Your task to perform on an android device: When is my next meeting? Image 0: 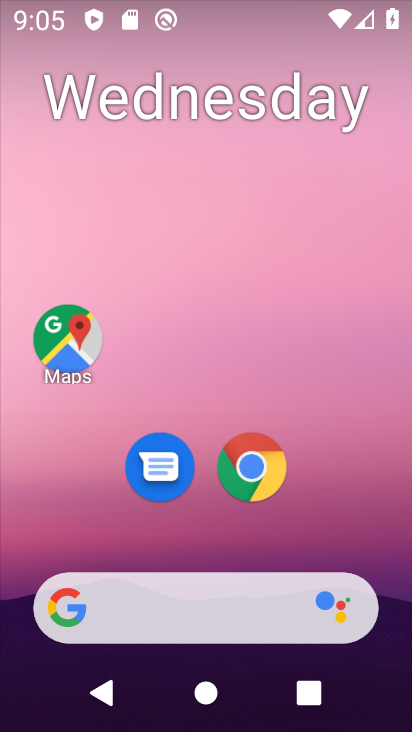
Step 0: drag from (329, 543) to (300, 46)
Your task to perform on an android device: When is my next meeting? Image 1: 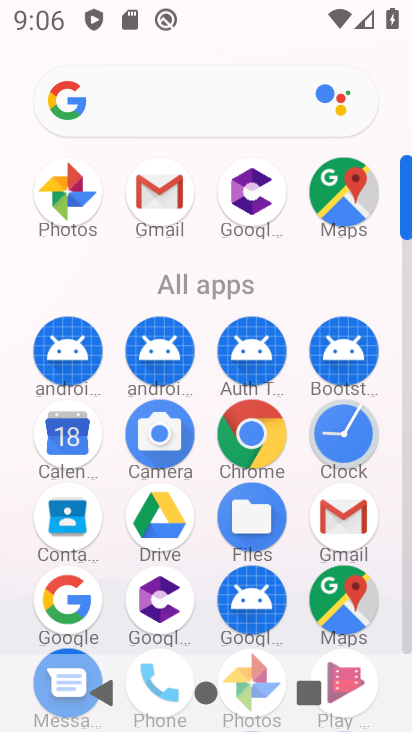
Step 1: click (68, 431)
Your task to perform on an android device: When is my next meeting? Image 2: 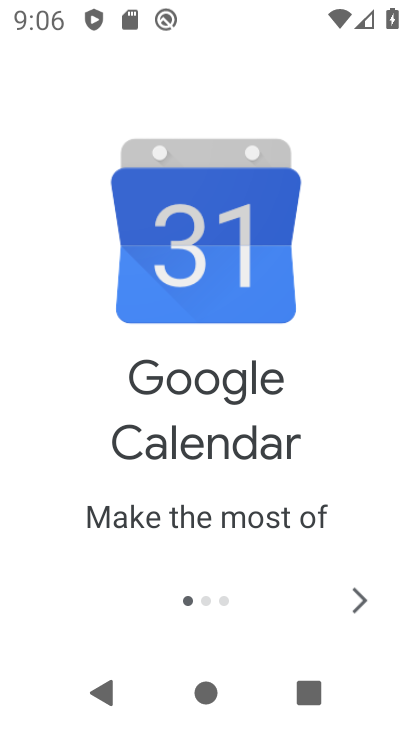
Step 2: click (358, 595)
Your task to perform on an android device: When is my next meeting? Image 3: 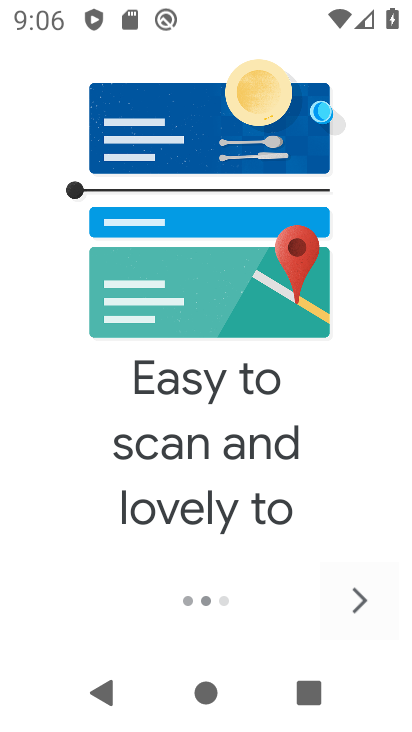
Step 3: click (359, 594)
Your task to perform on an android device: When is my next meeting? Image 4: 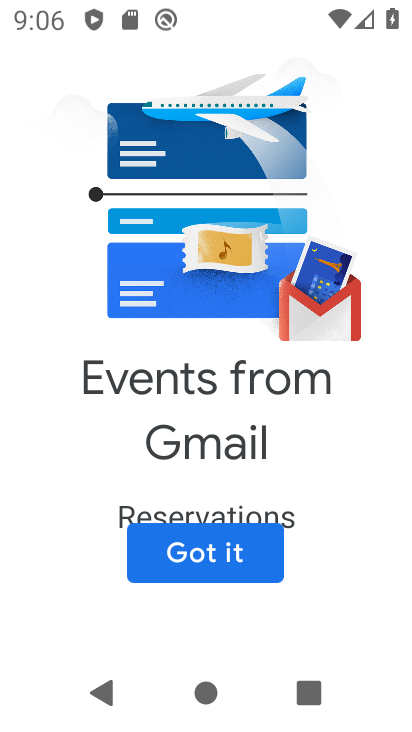
Step 4: click (209, 567)
Your task to perform on an android device: When is my next meeting? Image 5: 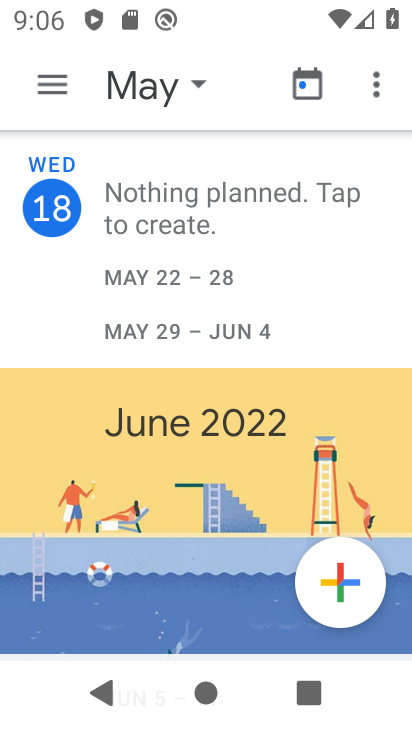
Step 5: click (57, 90)
Your task to perform on an android device: When is my next meeting? Image 6: 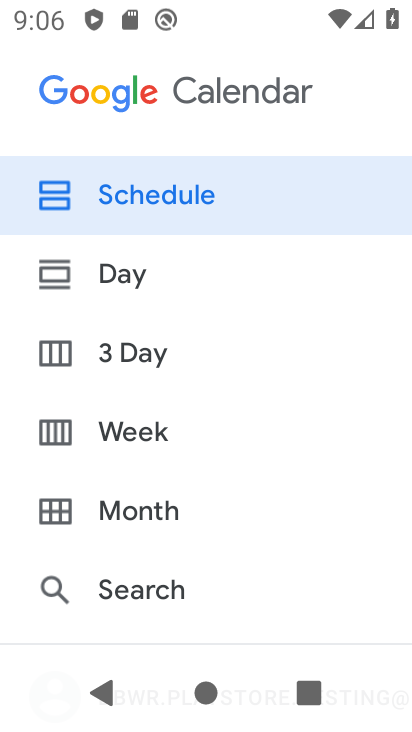
Step 6: click (143, 438)
Your task to perform on an android device: When is my next meeting? Image 7: 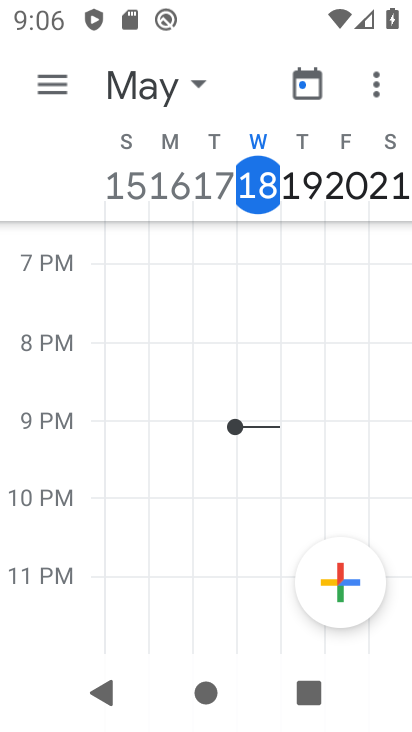
Step 7: drag from (57, 540) to (61, 145)
Your task to perform on an android device: When is my next meeting? Image 8: 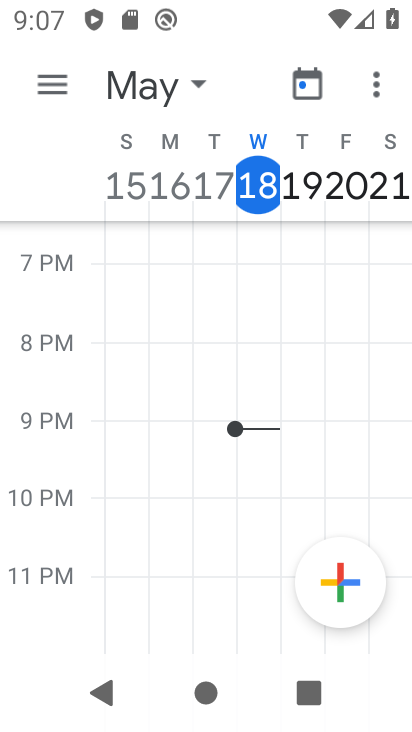
Step 8: drag from (67, 505) to (70, 140)
Your task to perform on an android device: When is my next meeting? Image 9: 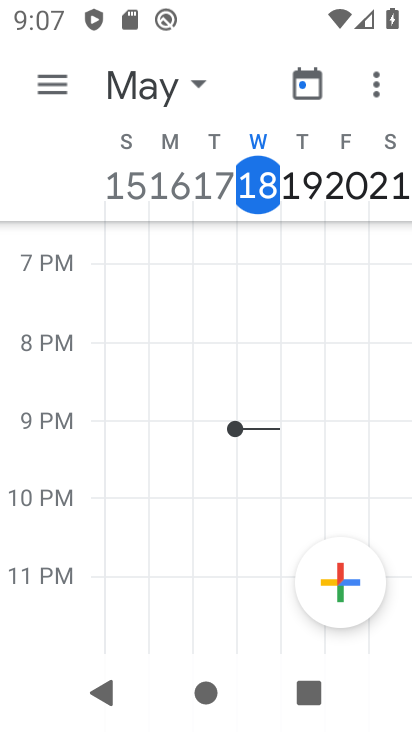
Step 9: drag from (68, 262) to (74, 713)
Your task to perform on an android device: When is my next meeting? Image 10: 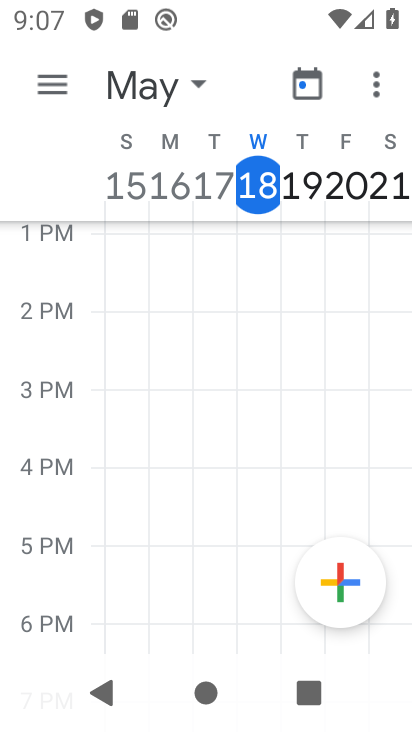
Step 10: drag from (72, 283) to (80, 623)
Your task to perform on an android device: When is my next meeting? Image 11: 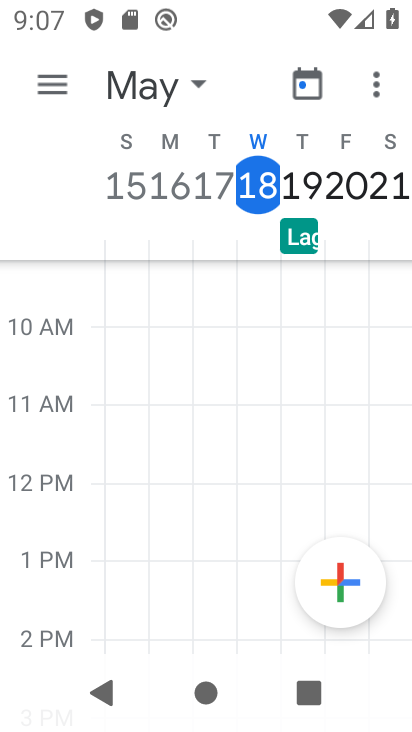
Step 11: drag from (52, 281) to (60, 567)
Your task to perform on an android device: When is my next meeting? Image 12: 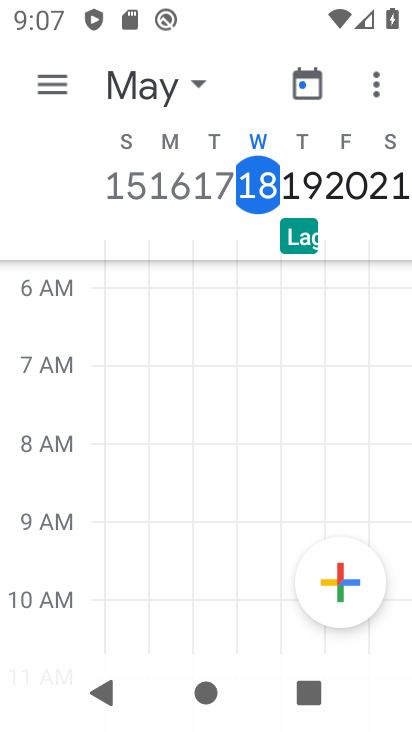
Step 12: drag from (46, 337) to (46, 611)
Your task to perform on an android device: When is my next meeting? Image 13: 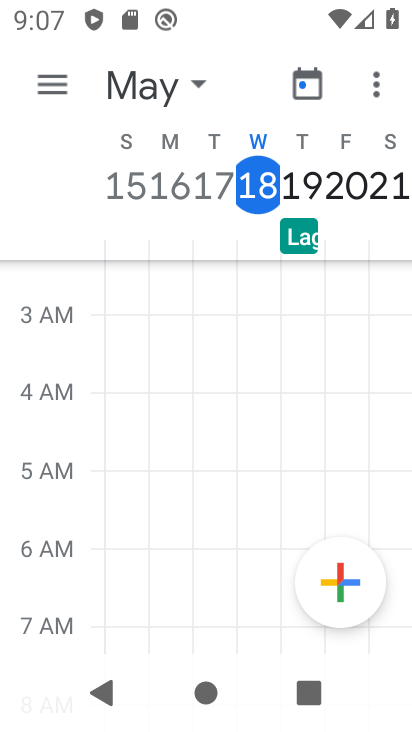
Step 13: drag from (49, 335) to (46, 586)
Your task to perform on an android device: When is my next meeting? Image 14: 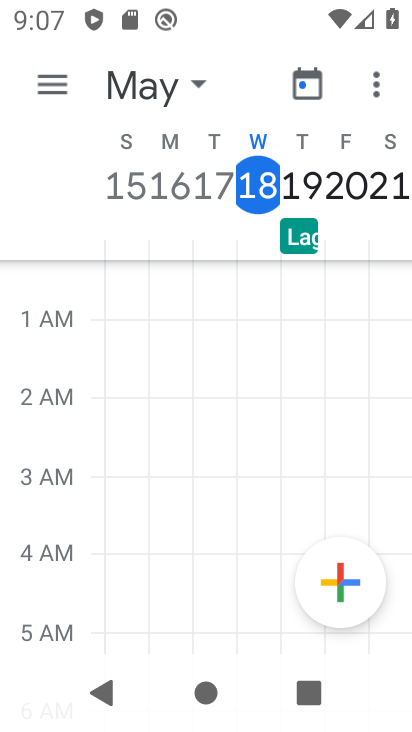
Step 14: drag from (32, 322) to (23, 550)
Your task to perform on an android device: When is my next meeting? Image 15: 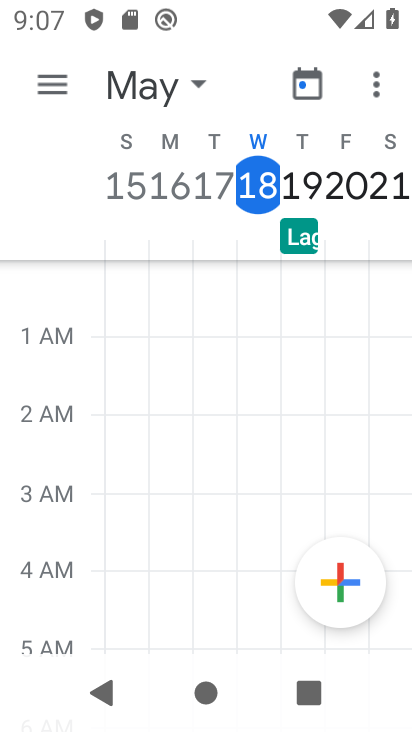
Step 15: drag from (12, 302) to (19, 513)
Your task to perform on an android device: When is my next meeting? Image 16: 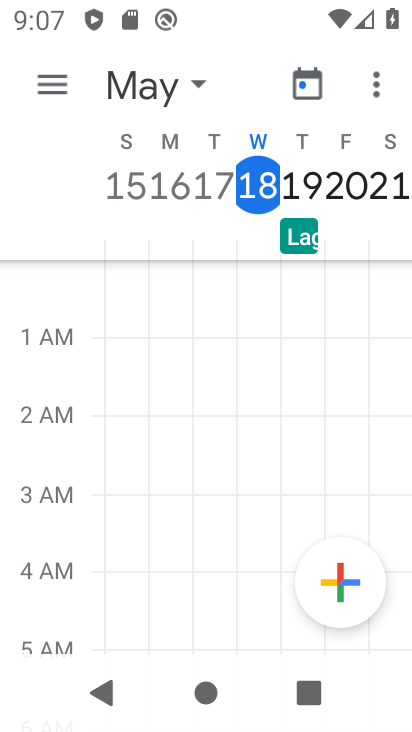
Step 16: drag from (44, 328) to (57, 529)
Your task to perform on an android device: When is my next meeting? Image 17: 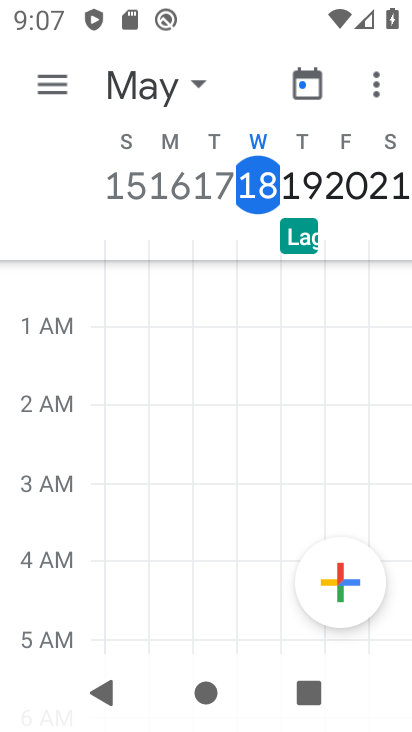
Step 17: click (312, 181)
Your task to perform on an android device: When is my next meeting? Image 18: 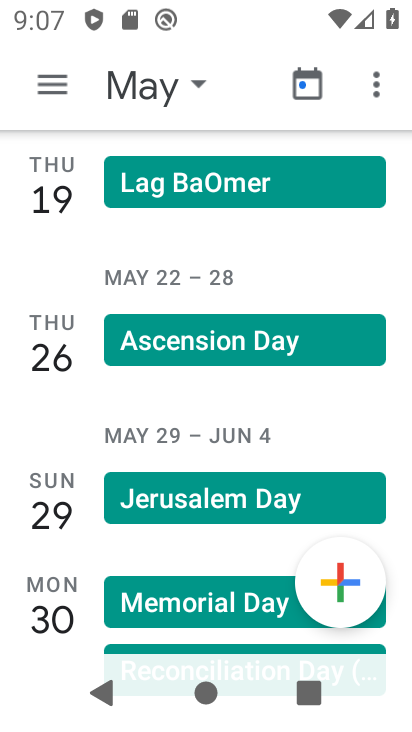
Step 18: task complete